Your task to perform on an android device: How do I get to the nearest Starbucks? Image 0: 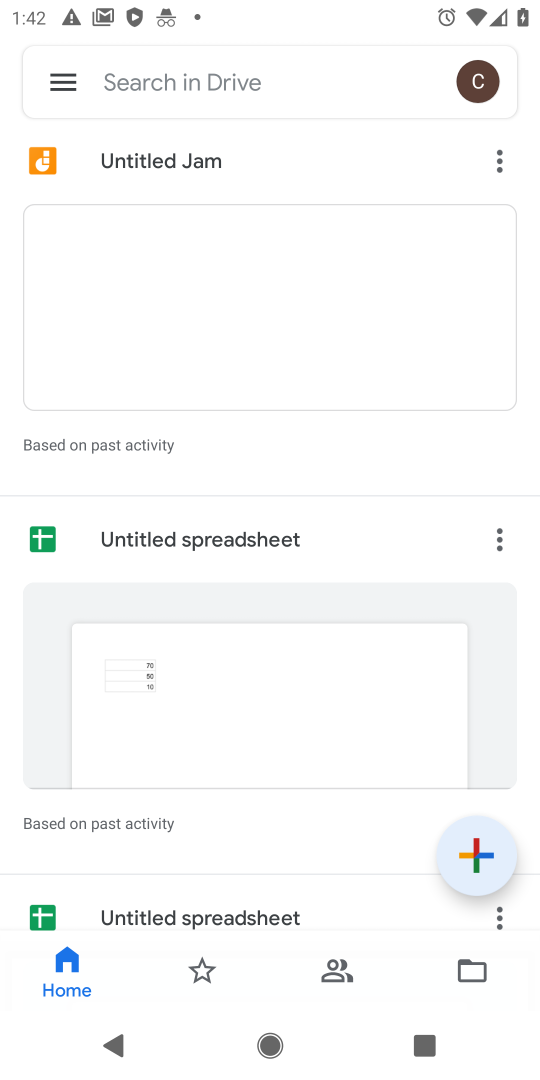
Step 0: press home button
Your task to perform on an android device: How do I get to the nearest Starbucks? Image 1: 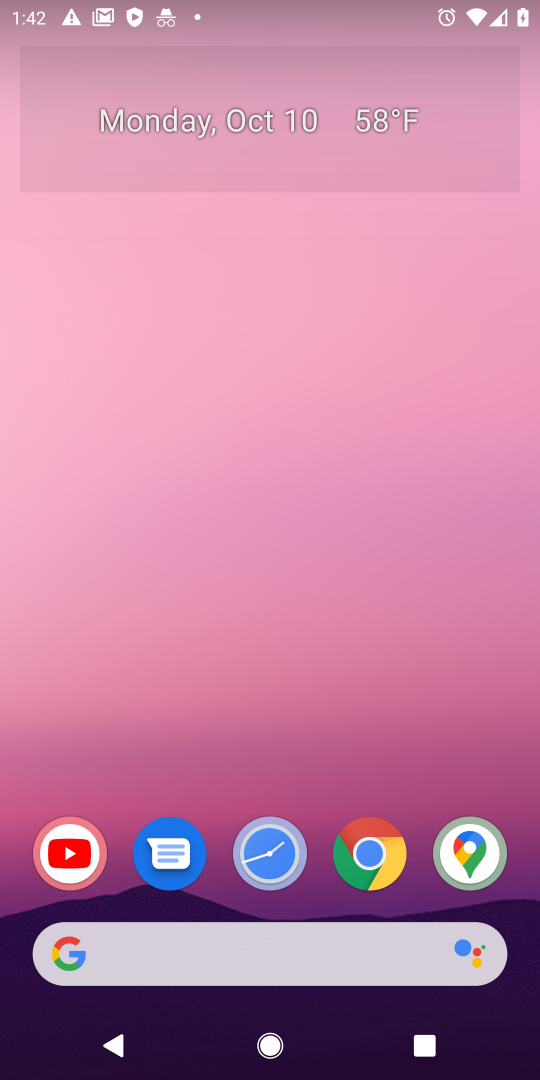
Step 1: drag from (319, 962) to (235, 26)
Your task to perform on an android device: How do I get to the nearest Starbucks? Image 2: 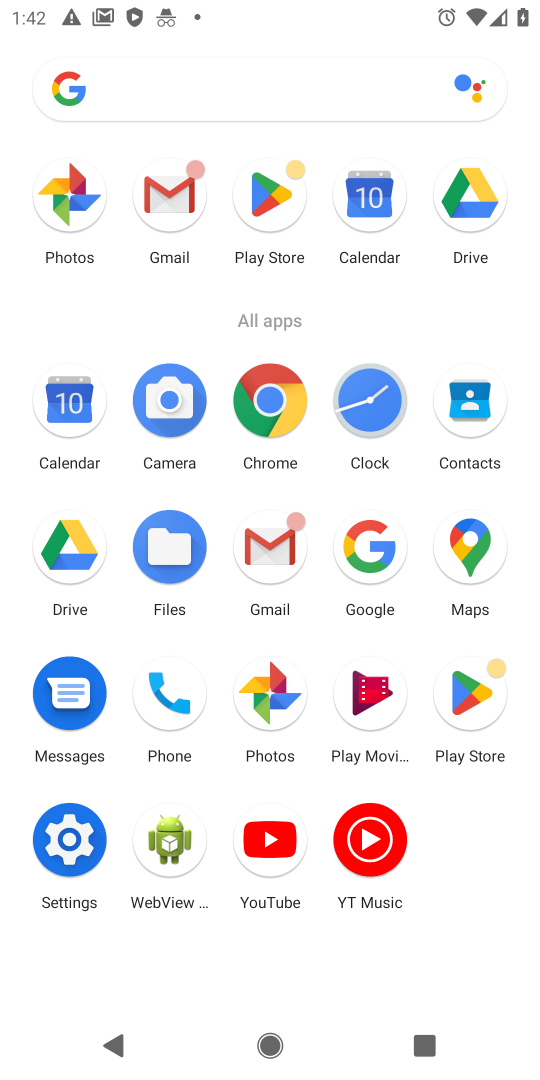
Step 2: click (288, 404)
Your task to perform on an android device: How do I get to the nearest Starbucks? Image 3: 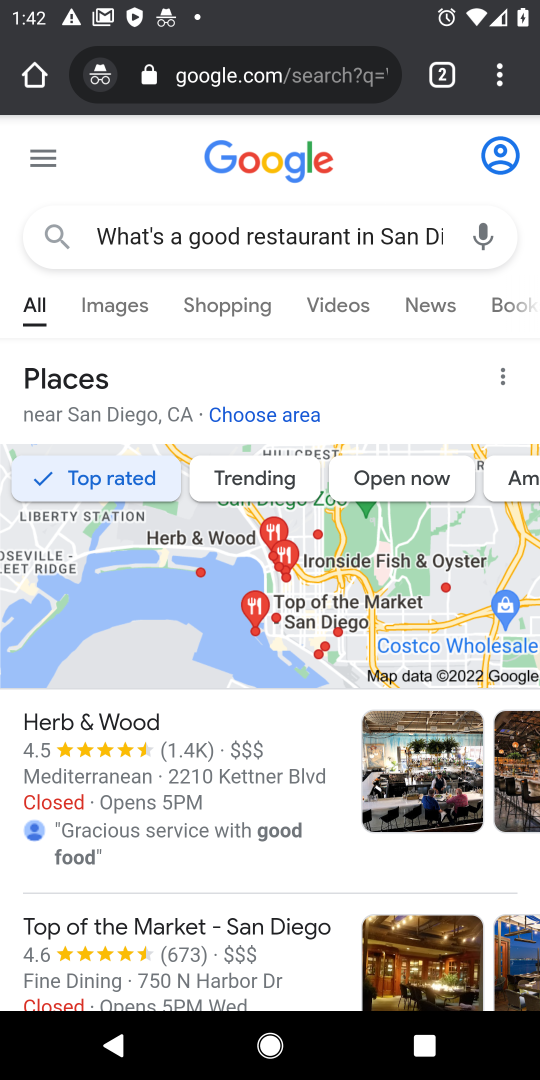
Step 3: click (434, 230)
Your task to perform on an android device: How do I get to the nearest Starbucks? Image 4: 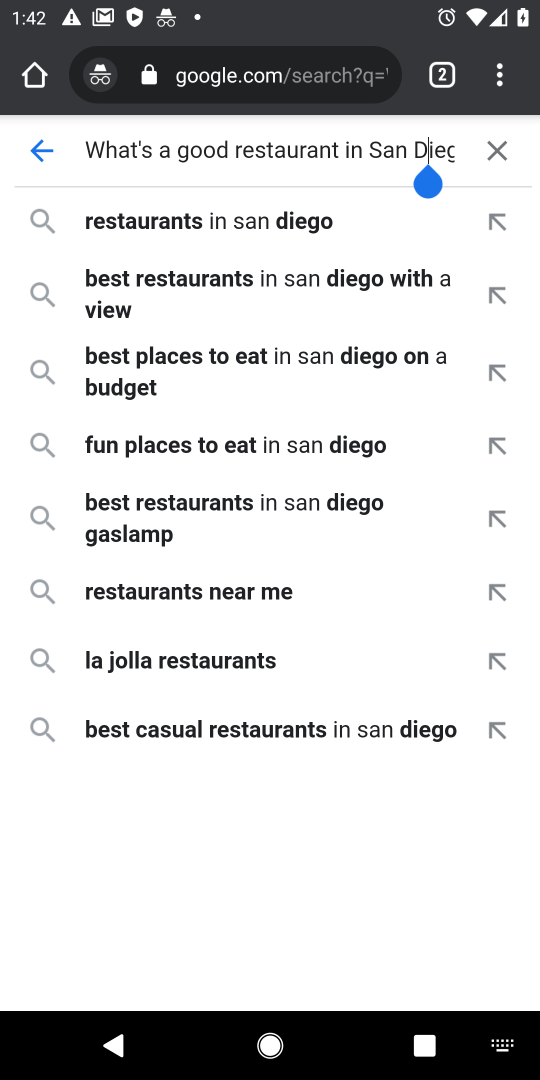
Step 4: click (497, 146)
Your task to perform on an android device: How do I get to the nearest Starbucks? Image 5: 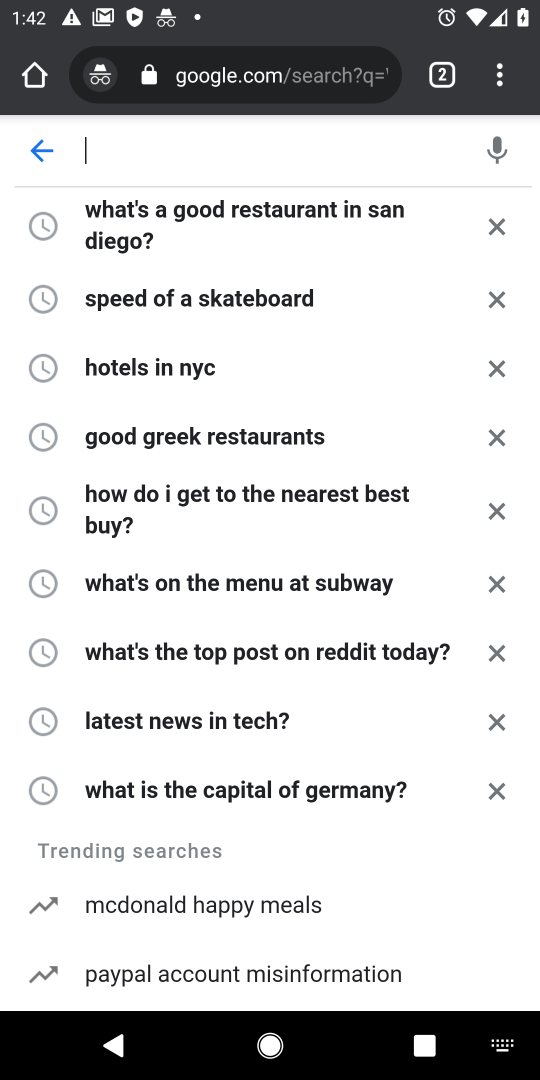
Step 5: drag from (1, 955) to (462, 220)
Your task to perform on an android device: How do I get to the nearest Starbucks? Image 6: 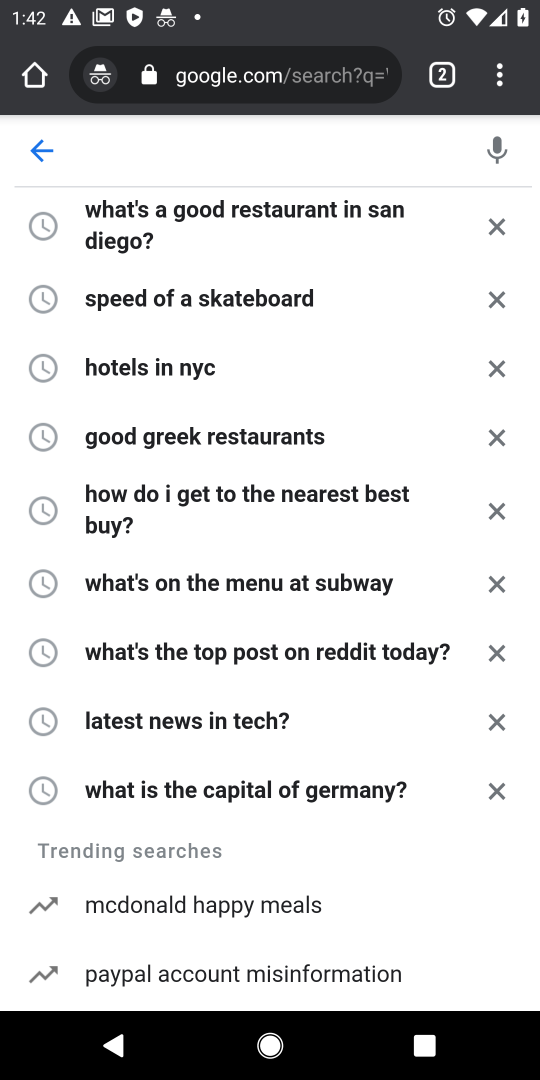
Step 6: click (314, 137)
Your task to perform on an android device: How do I get to the nearest Starbucks? Image 7: 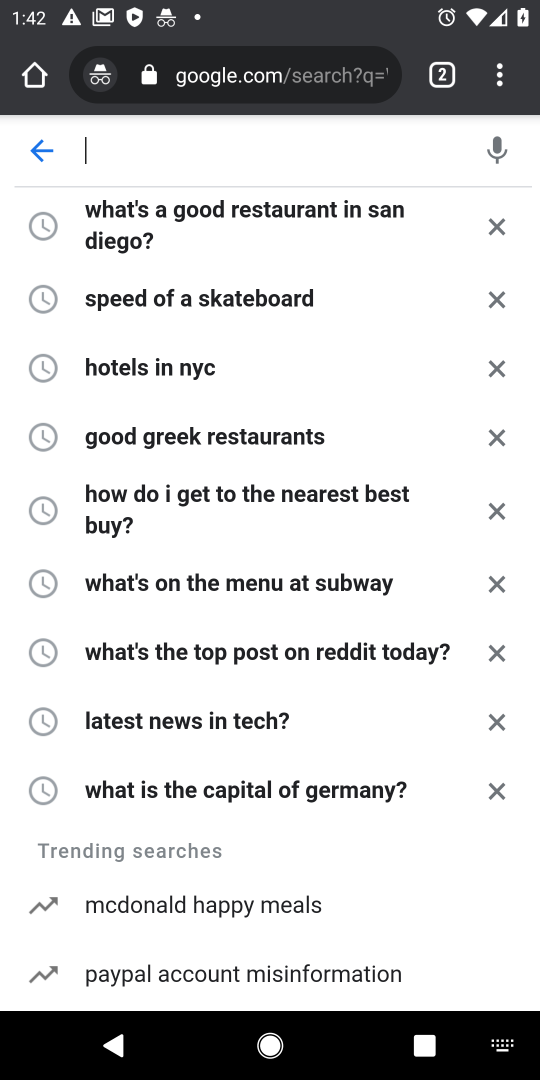
Step 7: type "How do I get to the nearest Starbucks?"
Your task to perform on an android device: How do I get to the nearest Starbucks? Image 8: 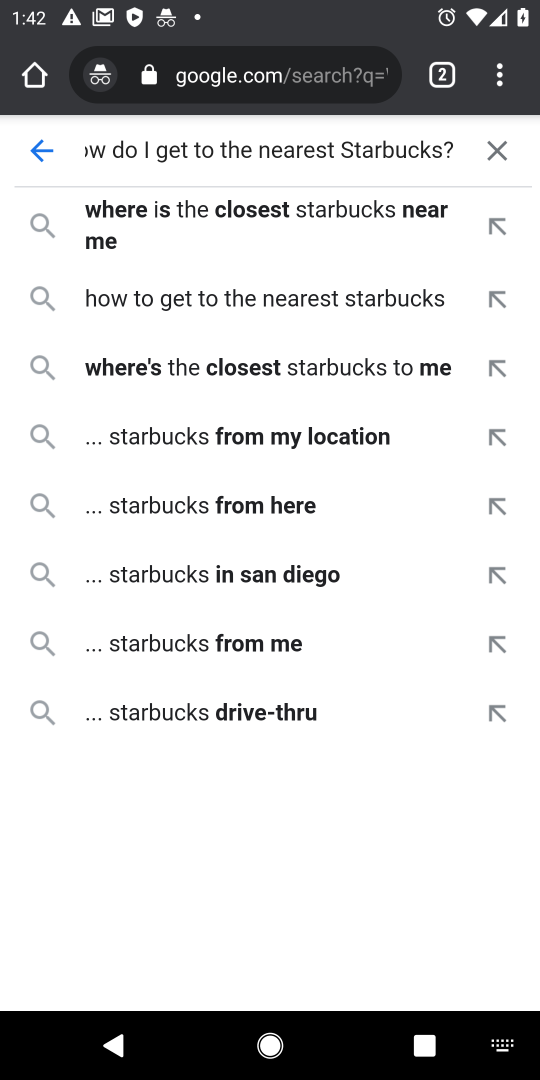
Step 8: click (316, 231)
Your task to perform on an android device: How do I get to the nearest Starbucks? Image 9: 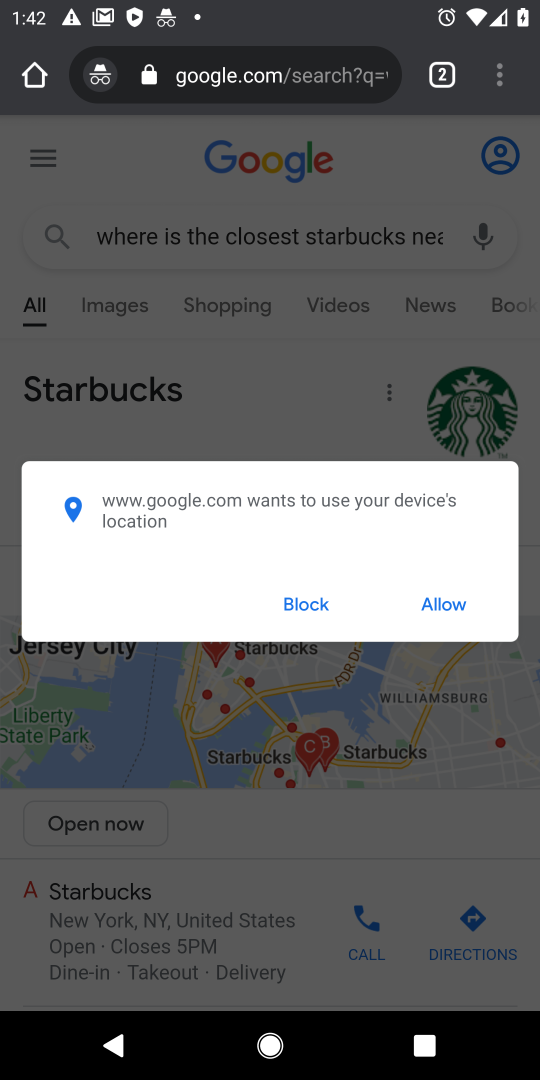
Step 9: task complete